Your task to perform on an android device: Open Google Chrome and open the bookmarks view Image 0: 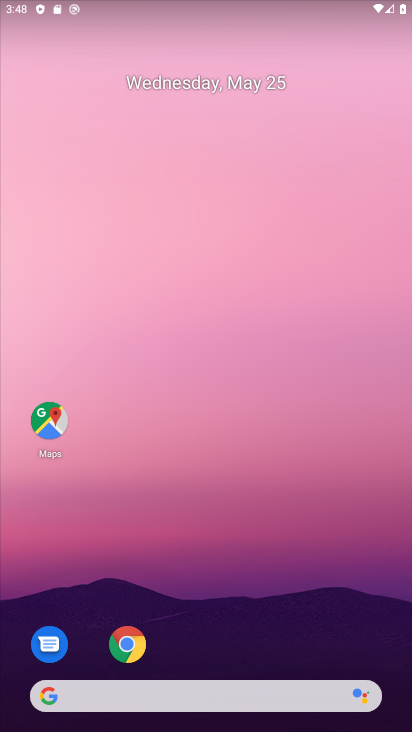
Step 0: click (127, 644)
Your task to perform on an android device: Open Google Chrome and open the bookmarks view Image 1: 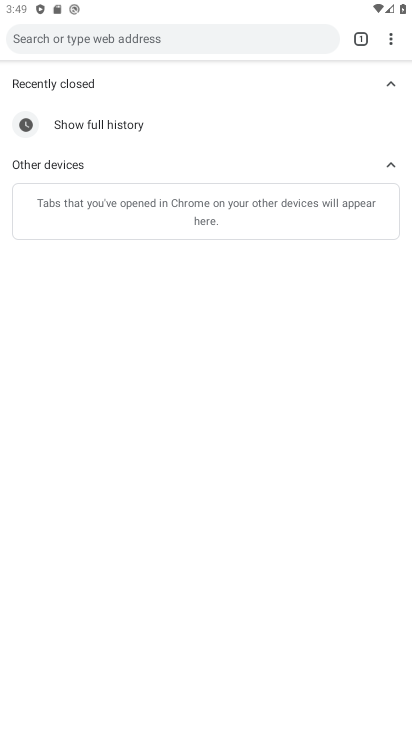
Step 1: click (391, 38)
Your task to perform on an android device: Open Google Chrome and open the bookmarks view Image 2: 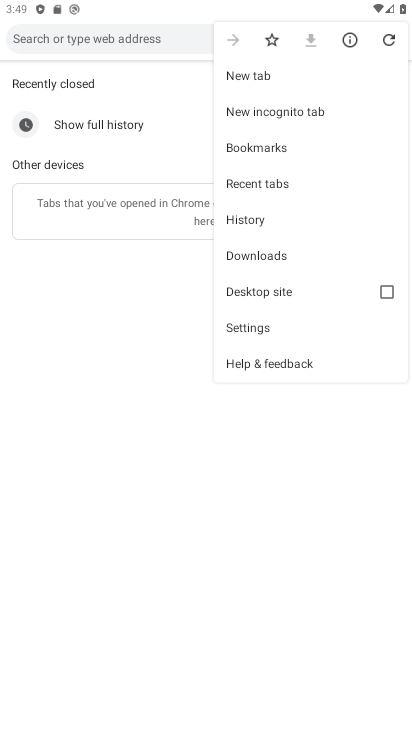
Step 2: click (261, 149)
Your task to perform on an android device: Open Google Chrome and open the bookmarks view Image 3: 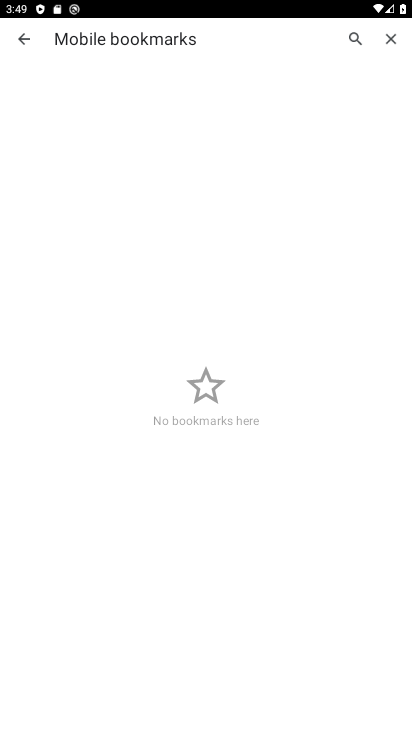
Step 3: task complete